Your task to perform on an android device: Is it going to rain tomorrow? Image 0: 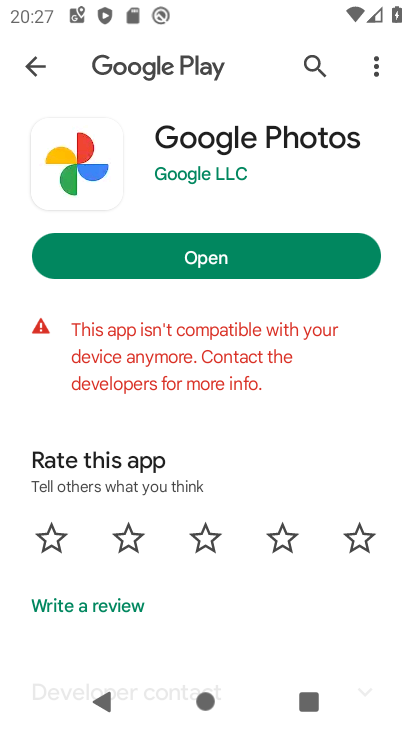
Step 0: press home button
Your task to perform on an android device: Is it going to rain tomorrow? Image 1: 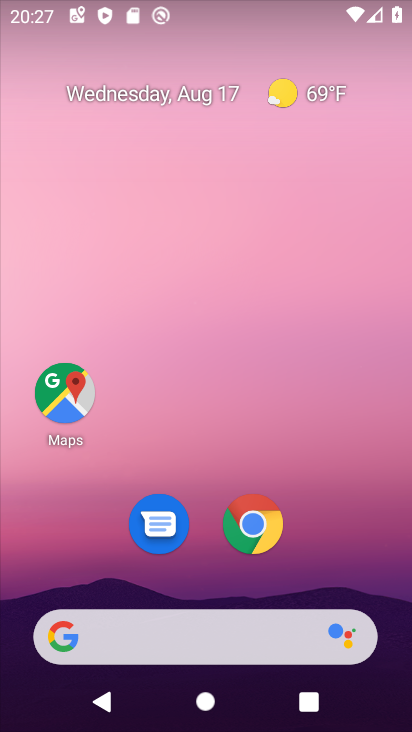
Step 1: click (318, 92)
Your task to perform on an android device: Is it going to rain tomorrow? Image 2: 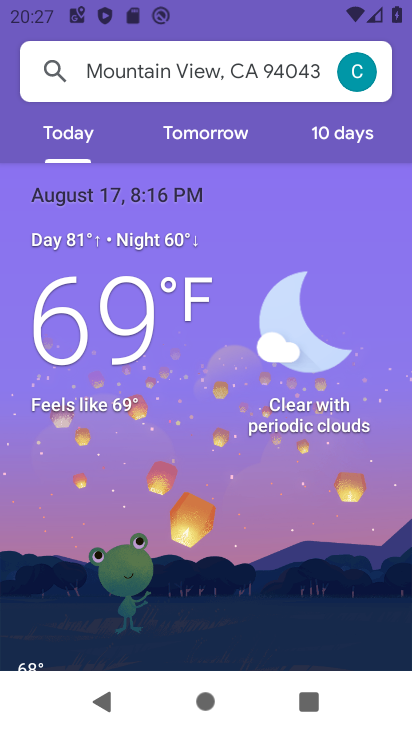
Step 2: click (204, 137)
Your task to perform on an android device: Is it going to rain tomorrow? Image 3: 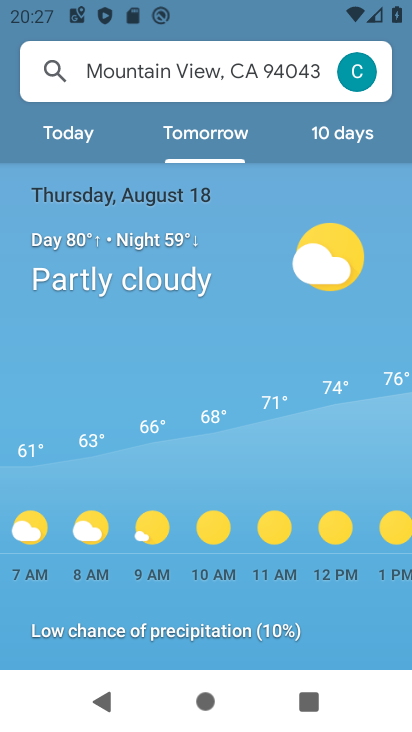
Step 3: task complete